Your task to perform on an android device: toggle notification dots Image 0: 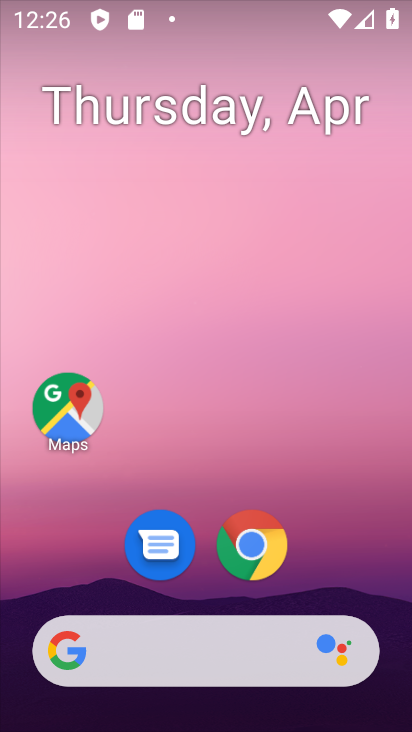
Step 0: drag from (362, 516) to (345, 144)
Your task to perform on an android device: toggle notification dots Image 1: 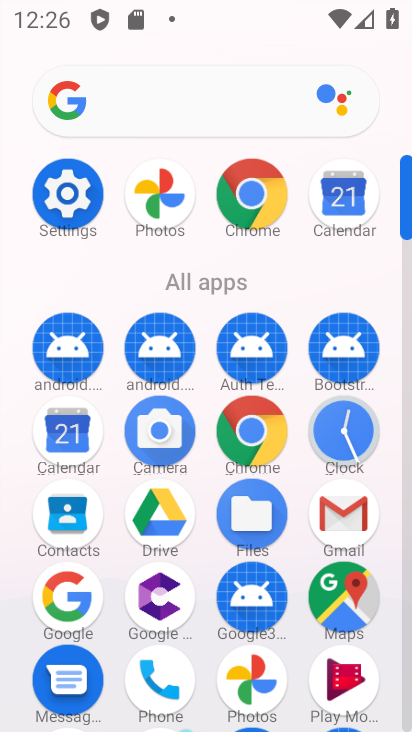
Step 1: click (70, 195)
Your task to perform on an android device: toggle notification dots Image 2: 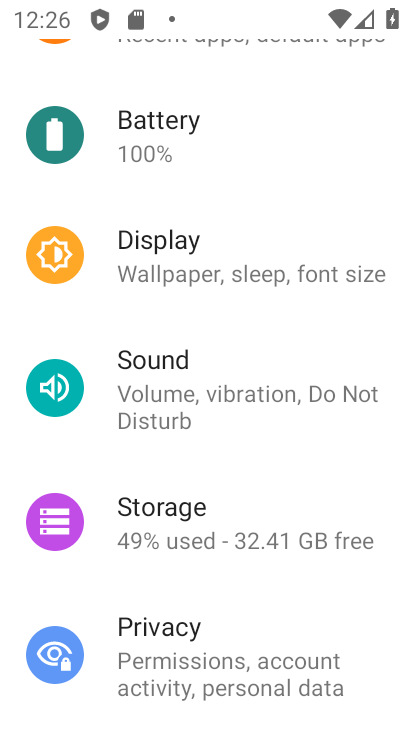
Step 2: click (312, 600)
Your task to perform on an android device: toggle notification dots Image 3: 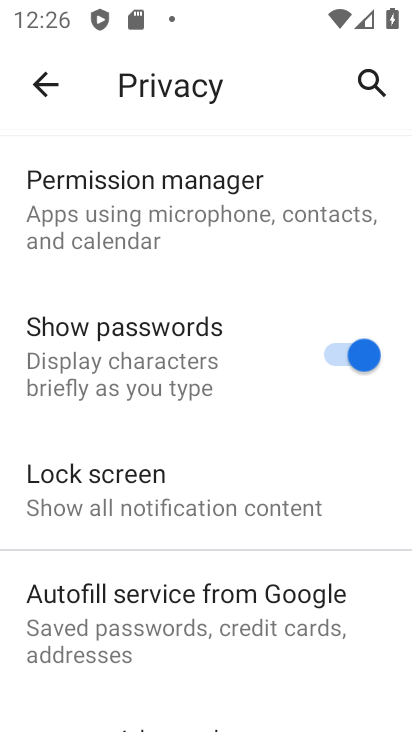
Step 3: click (49, 89)
Your task to perform on an android device: toggle notification dots Image 4: 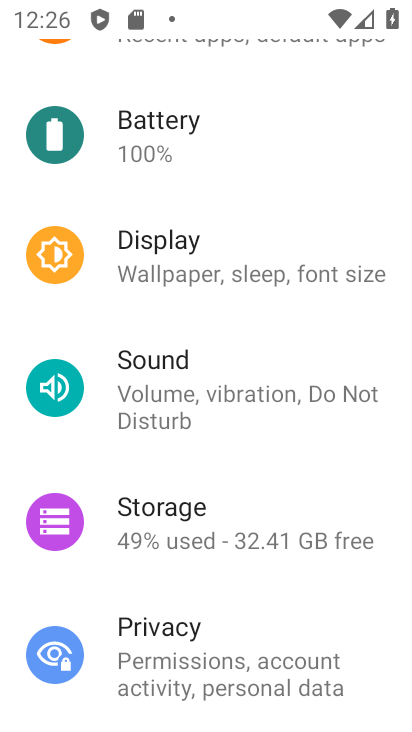
Step 4: drag from (238, 583) to (245, 137)
Your task to perform on an android device: toggle notification dots Image 5: 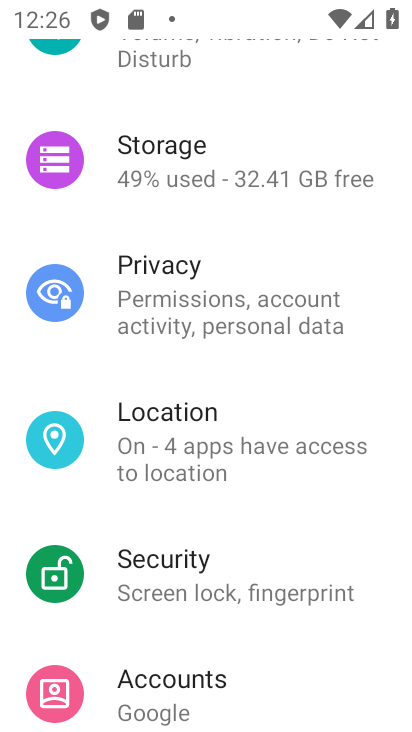
Step 5: drag from (207, 565) to (254, 226)
Your task to perform on an android device: toggle notification dots Image 6: 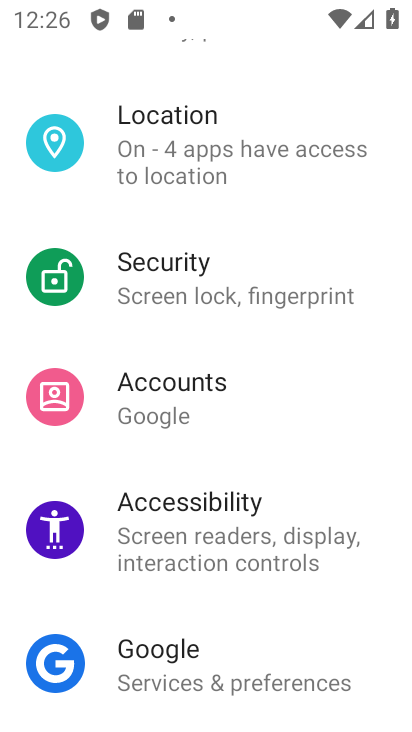
Step 6: drag from (214, 575) to (243, 209)
Your task to perform on an android device: toggle notification dots Image 7: 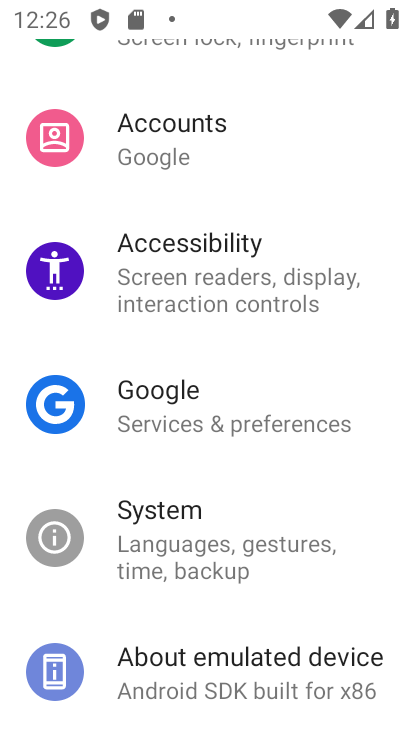
Step 7: drag from (243, 275) to (282, 602)
Your task to perform on an android device: toggle notification dots Image 8: 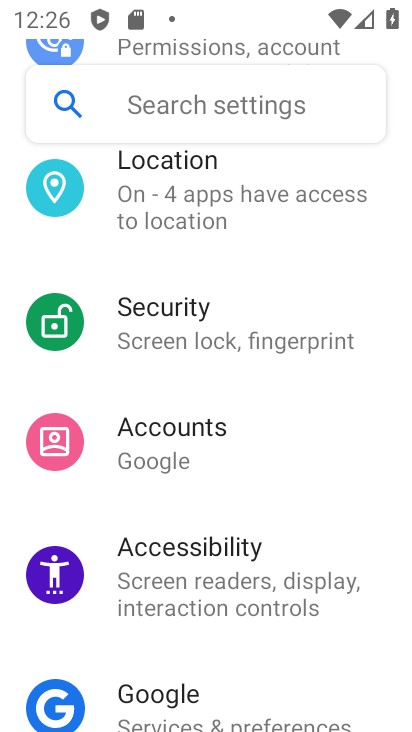
Step 8: drag from (217, 229) to (283, 609)
Your task to perform on an android device: toggle notification dots Image 9: 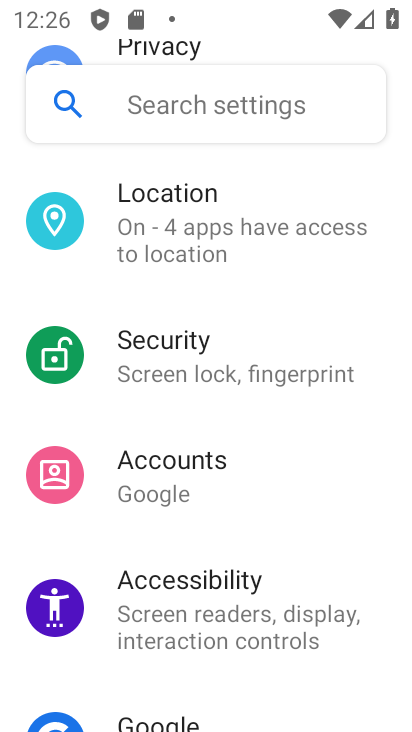
Step 9: drag from (277, 275) to (294, 544)
Your task to perform on an android device: toggle notification dots Image 10: 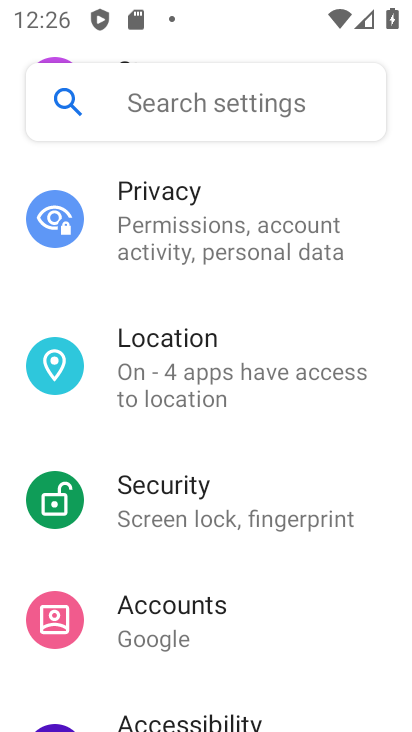
Step 10: drag from (243, 265) to (291, 628)
Your task to perform on an android device: toggle notification dots Image 11: 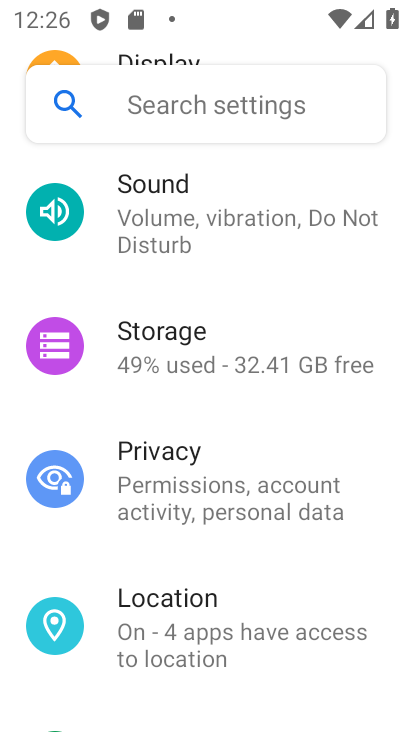
Step 11: drag from (251, 285) to (293, 660)
Your task to perform on an android device: toggle notification dots Image 12: 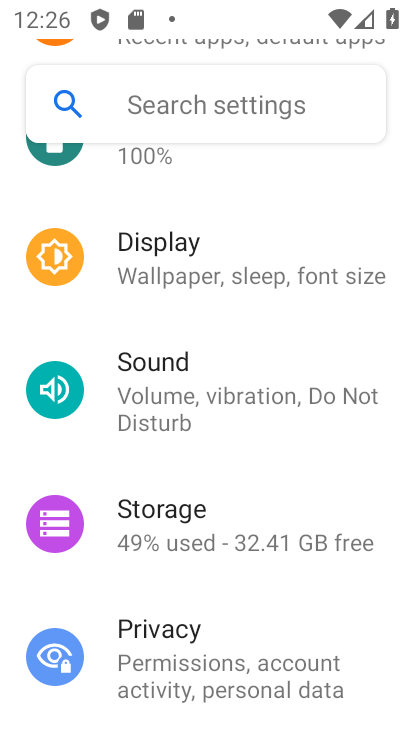
Step 12: drag from (234, 294) to (294, 731)
Your task to perform on an android device: toggle notification dots Image 13: 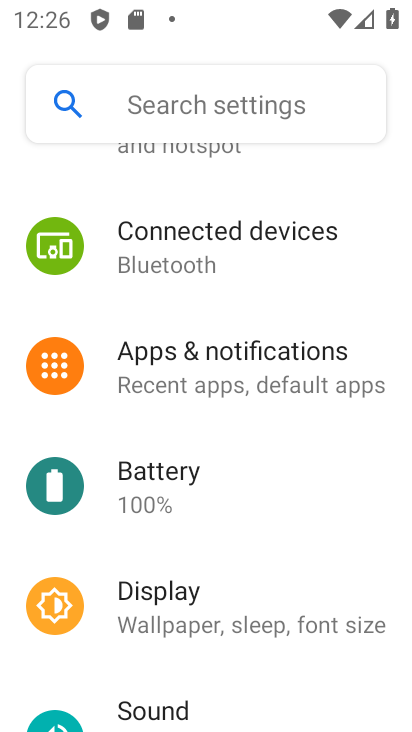
Step 13: click (224, 359)
Your task to perform on an android device: toggle notification dots Image 14: 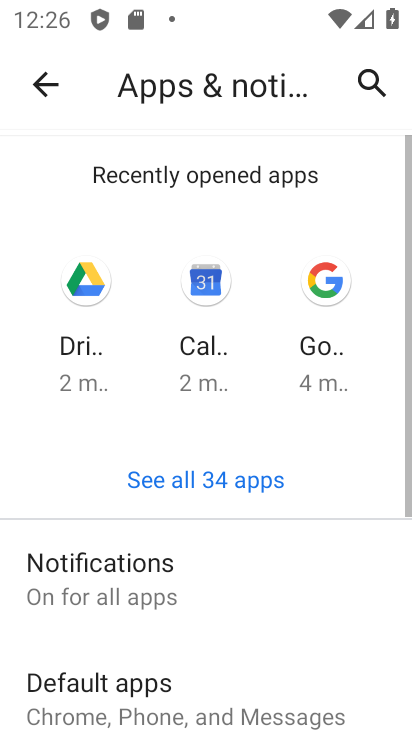
Step 14: click (168, 563)
Your task to perform on an android device: toggle notification dots Image 15: 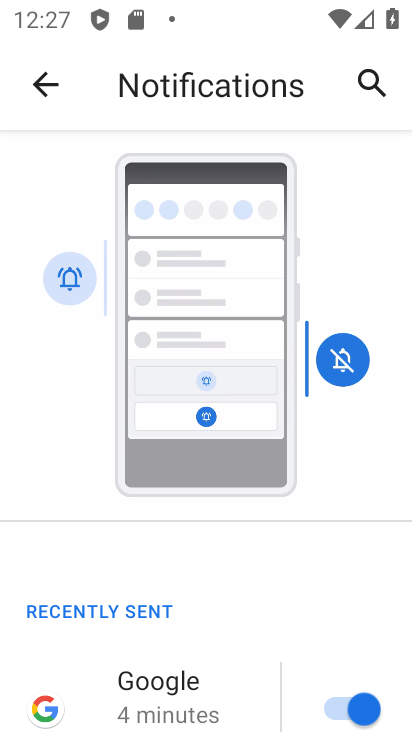
Step 15: drag from (216, 567) to (225, 151)
Your task to perform on an android device: toggle notification dots Image 16: 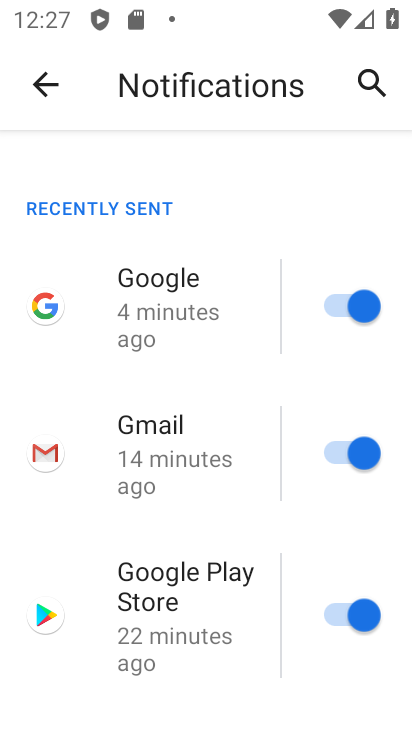
Step 16: drag from (158, 537) to (218, 129)
Your task to perform on an android device: toggle notification dots Image 17: 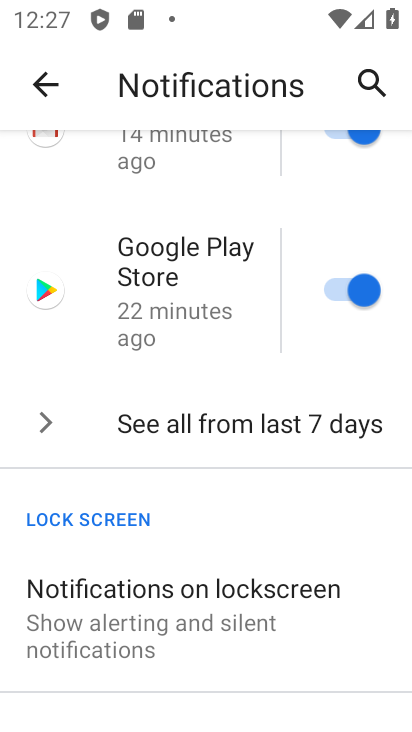
Step 17: drag from (192, 517) to (244, 137)
Your task to perform on an android device: toggle notification dots Image 18: 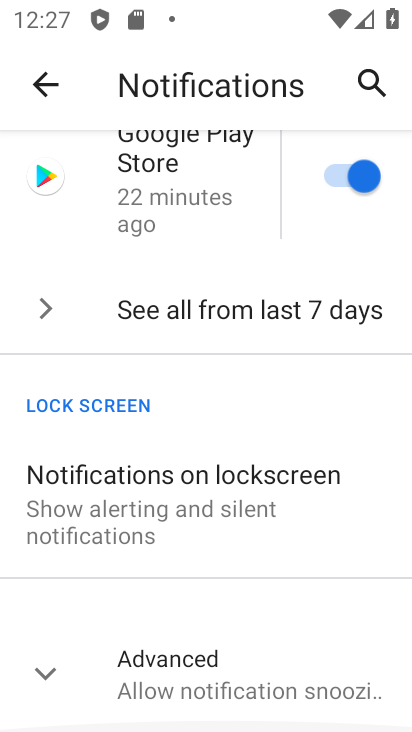
Step 18: click (130, 677)
Your task to perform on an android device: toggle notification dots Image 19: 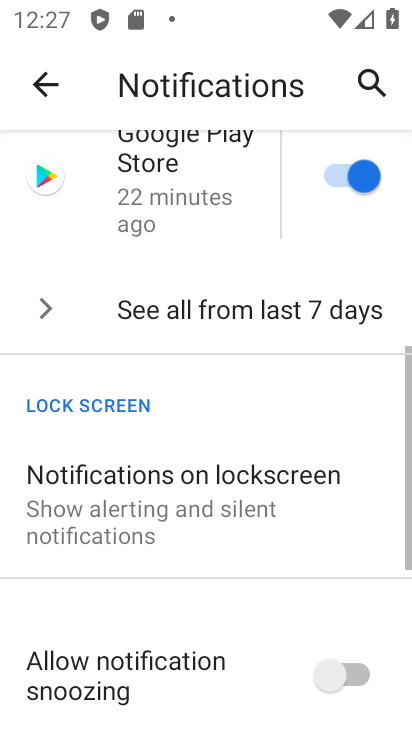
Step 19: drag from (235, 627) to (228, 176)
Your task to perform on an android device: toggle notification dots Image 20: 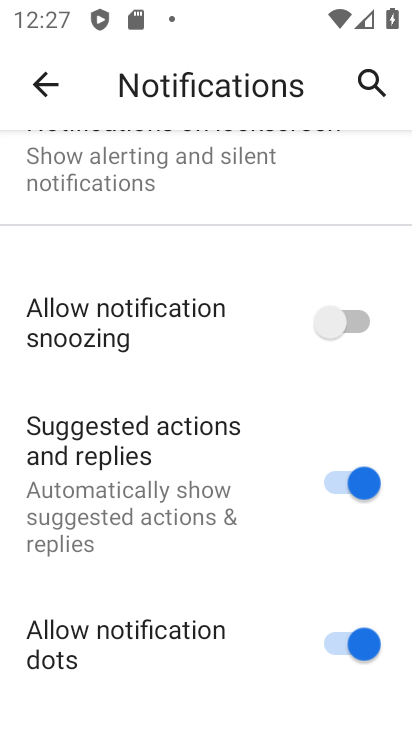
Step 20: click (337, 642)
Your task to perform on an android device: toggle notification dots Image 21: 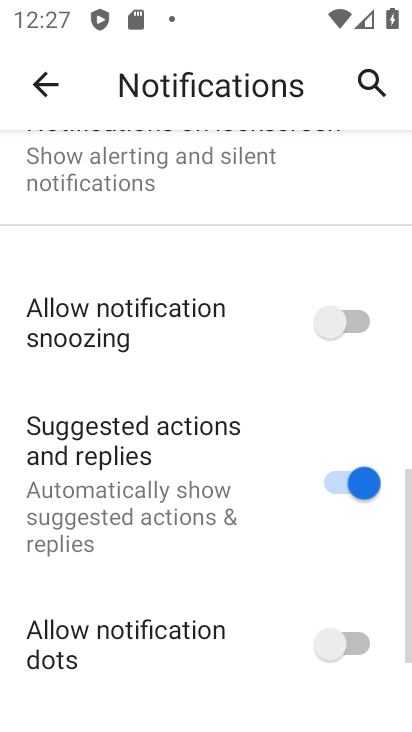
Step 21: task complete